Your task to perform on an android device: turn on the 12-hour format for clock Image 0: 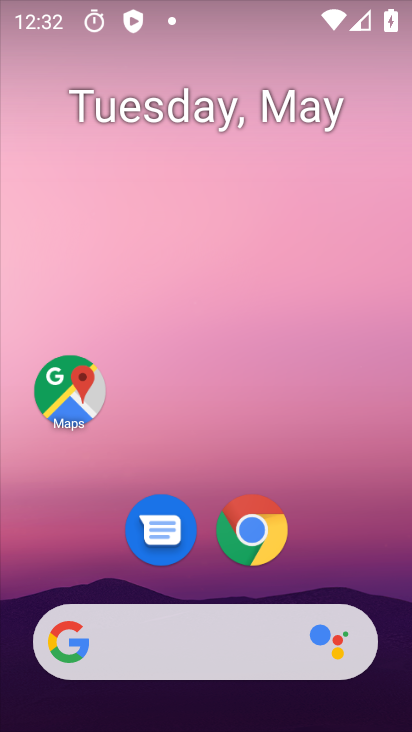
Step 0: drag from (355, 498) to (270, 29)
Your task to perform on an android device: turn on the 12-hour format for clock Image 1: 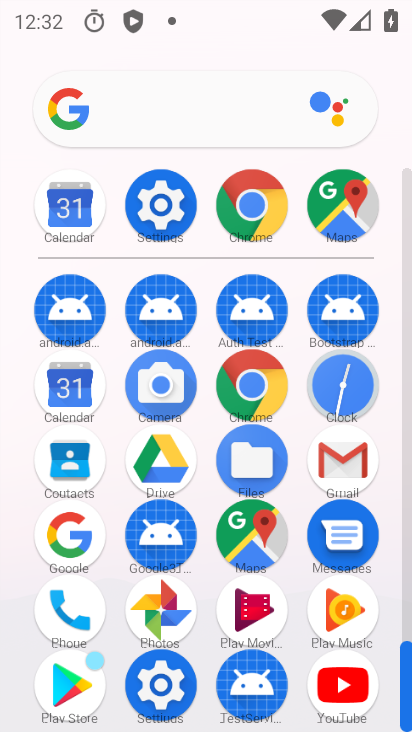
Step 1: drag from (3, 587) to (19, 197)
Your task to perform on an android device: turn on the 12-hour format for clock Image 2: 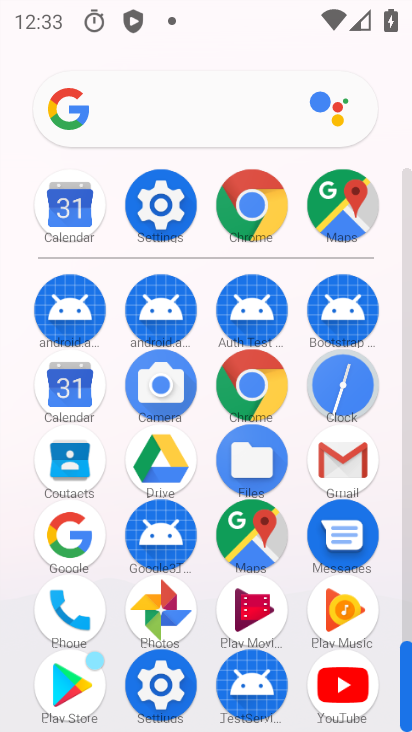
Step 2: drag from (8, 519) to (7, 213)
Your task to perform on an android device: turn on the 12-hour format for clock Image 3: 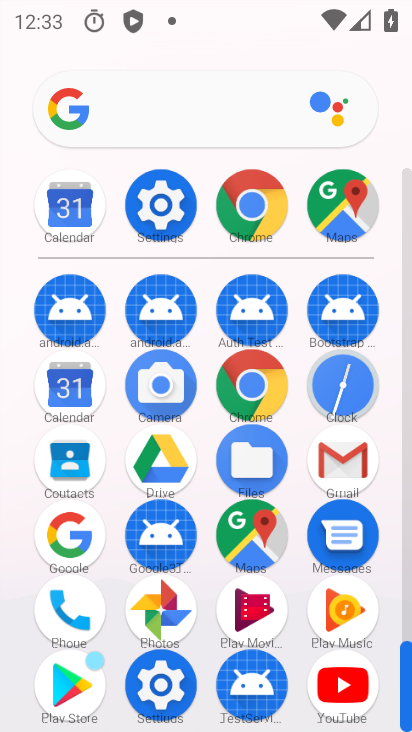
Step 3: drag from (19, 588) to (13, 271)
Your task to perform on an android device: turn on the 12-hour format for clock Image 4: 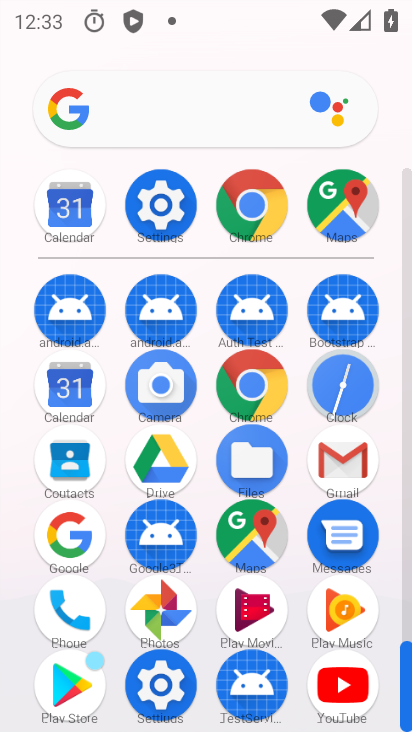
Step 4: click (340, 386)
Your task to perform on an android device: turn on the 12-hour format for clock Image 5: 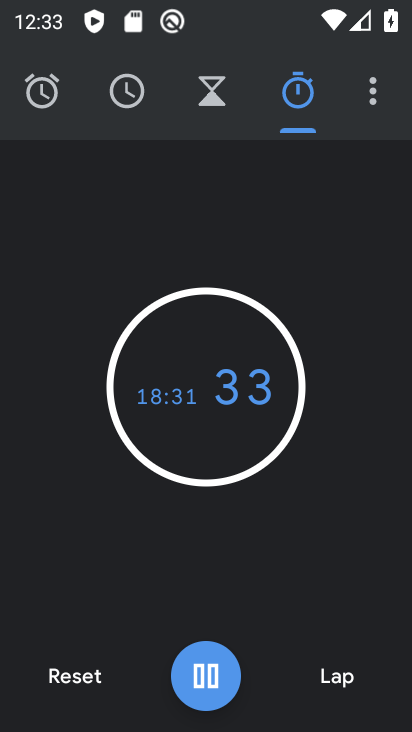
Step 5: drag from (367, 97) to (198, 176)
Your task to perform on an android device: turn on the 12-hour format for clock Image 6: 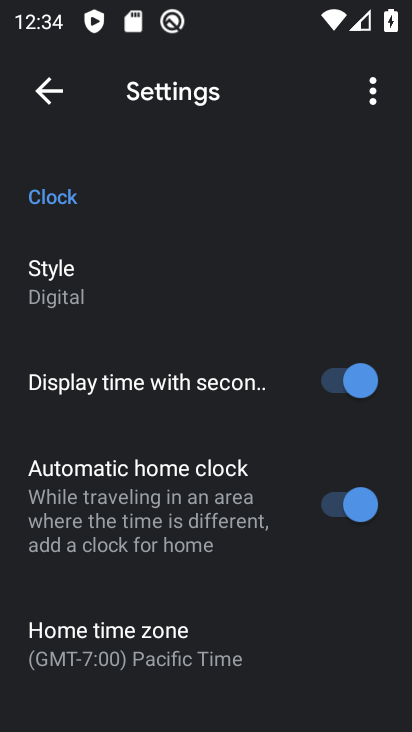
Step 6: drag from (228, 608) to (223, 214)
Your task to perform on an android device: turn on the 12-hour format for clock Image 7: 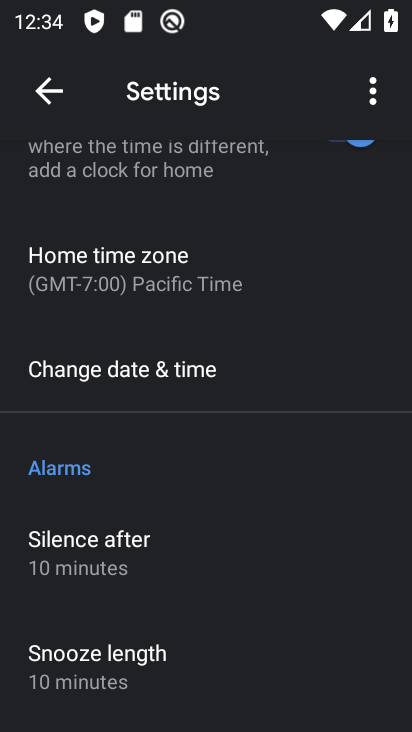
Step 7: click (181, 372)
Your task to perform on an android device: turn on the 12-hour format for clock Image 8: 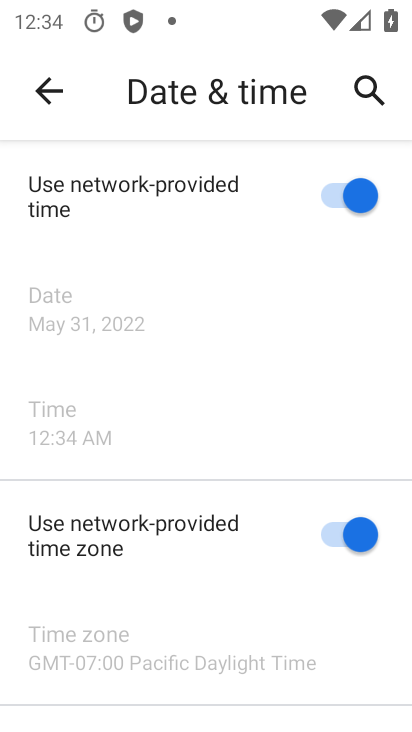
Step 8: task complete